Your task to perform on an android device: turn pop-ups off in chrome Image 0: 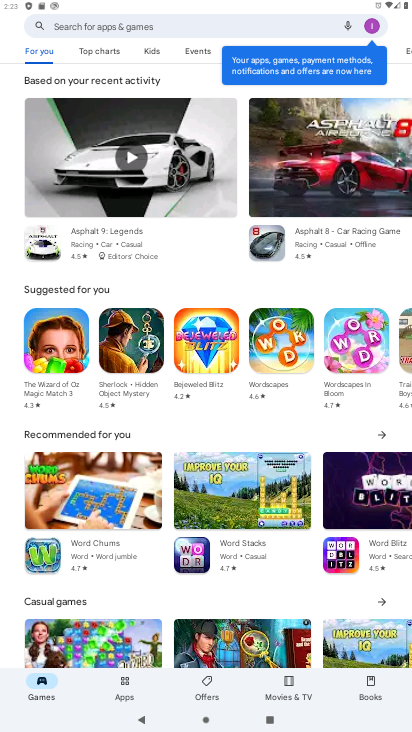
Step 0: press home button
Your task to perform on an android device: turn pop-ups off in chrome Image 1: 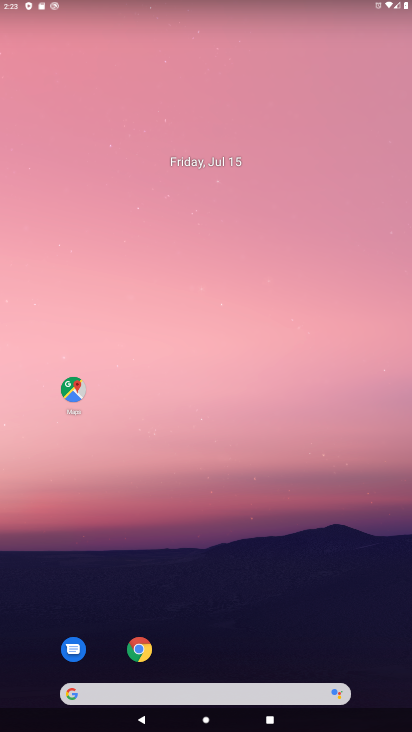
Step 1: click (131, 641)
Your task to perform on an android device: turn pop-ups off in chrome Image 2: 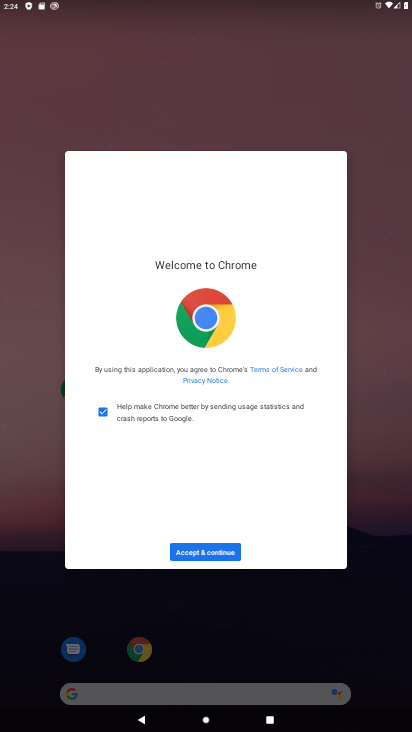
Step 2: click (211, 550)
Your task to perform on an android device: turn pop-ups off in chrome Image 3: 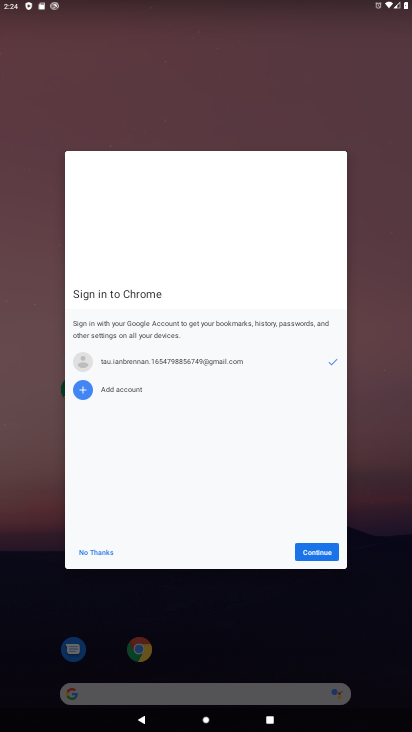
Step 3: click (322, 552)
Your task to perform on an android device: turn pop-ups off in chrome Image 4: 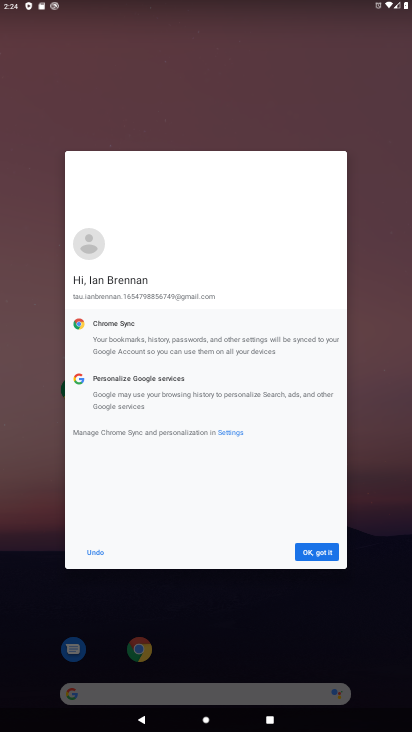
Step 4: click (322, 550)
Your task to perform on an android device: turn pop-ups off in chrome Image 5: 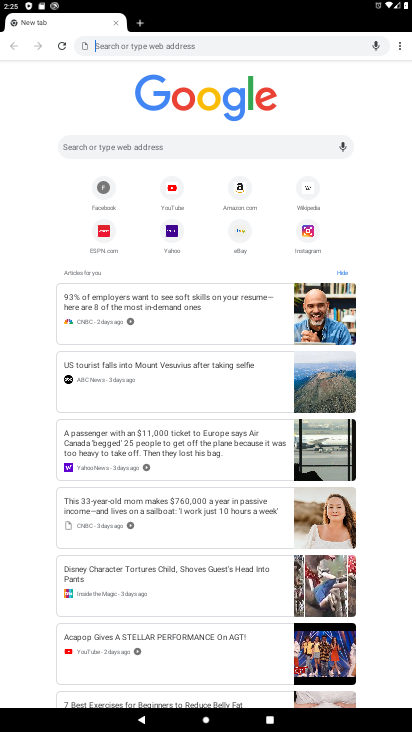
Step 5: click (398, 47)
Your task to perform on an android device: turn pop-ups off in chrome Image 6: 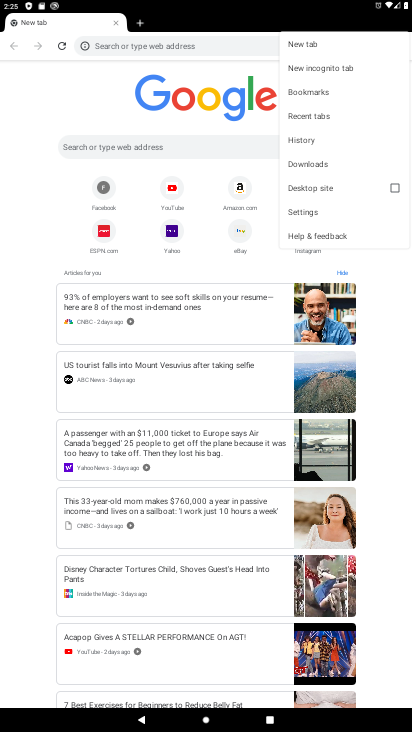
Step 6: click (316, 218)
Your task to perform on an android device: turn pop-ups off in chrome Image 7: 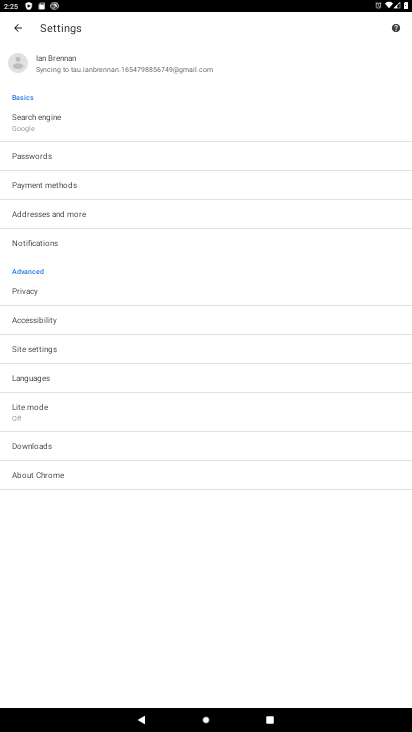
Step 7: click (61, 354)
Your task to perform on an android device: turn pop-ups off in chrome Image 8: 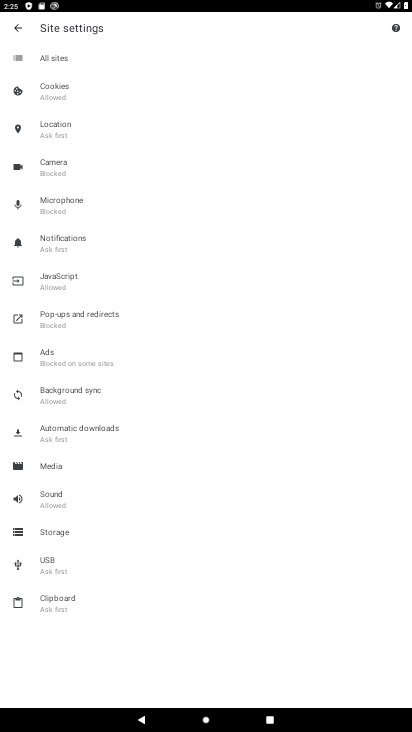
Step 8: click (73, 323)
Your task to perform on an android device: turn pop-ups off in chrome Image 9: 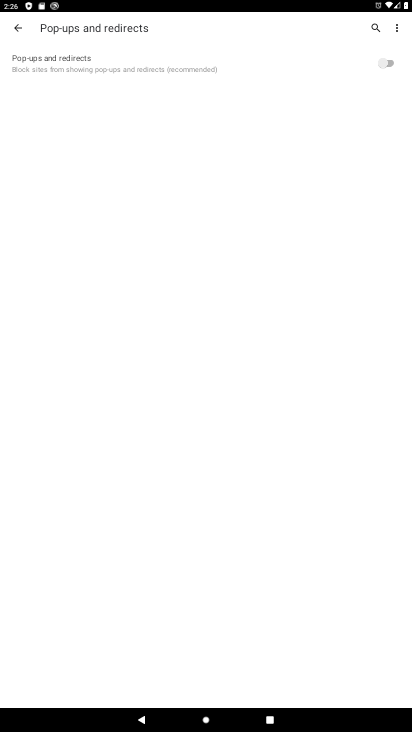
Step 9: task complete